Your task to perform on an android device: see tabs open on other devices in the chrome app Image 0: 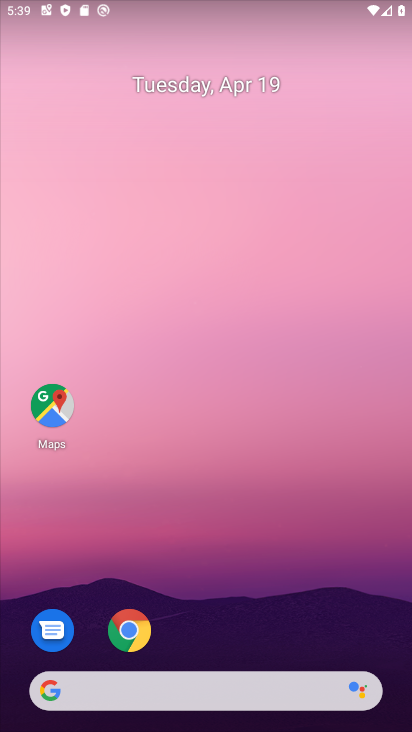
Step 0: drag from (283, 610) to (226, 32)
Your task to perform on an android device: see tabs open on other devices in the chrome app Image 1: 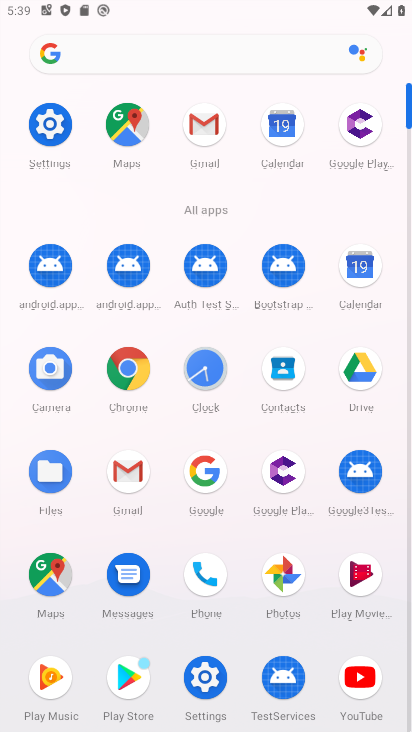
Step 1: click (112, 371)
Your task to perform on an android device: see tabs open on other devices in the chrome app Image 2: 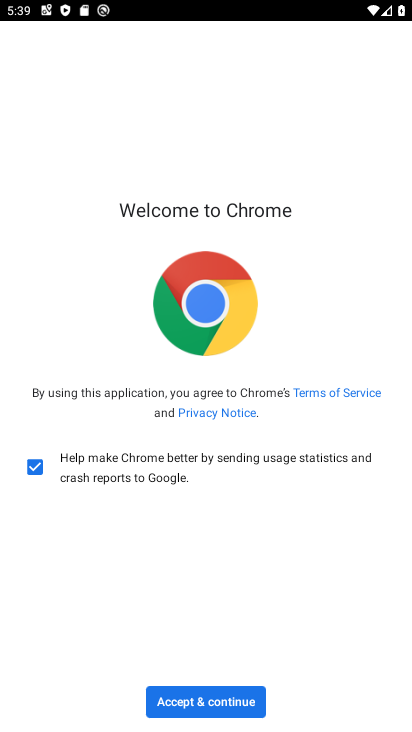
Step 2: click (213, 702)
Your task to perform on an android device: see tabs open on other devices in the chrome app Image 3: 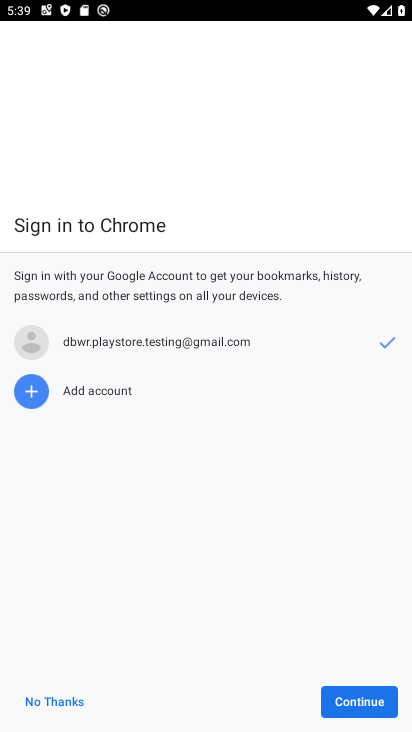
Step 3: click (345, 705)
Your task to perform on an android device: see tabs open on other devices in the chrome app Image 4: 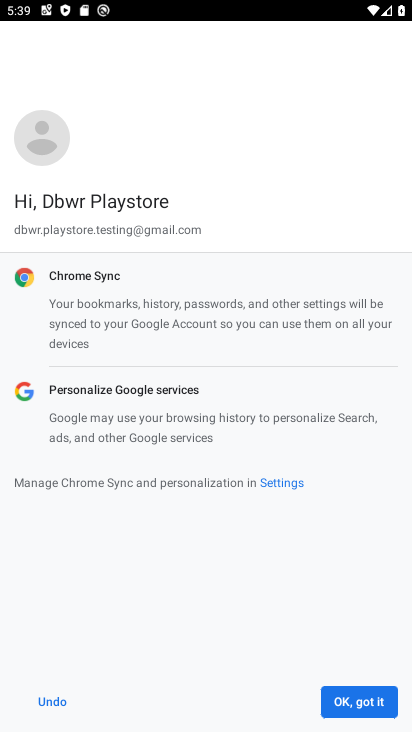
Step 4: click (345, 705)
Your task to perform on an android device: see tabs open on other devices in the chrome app Image 5: 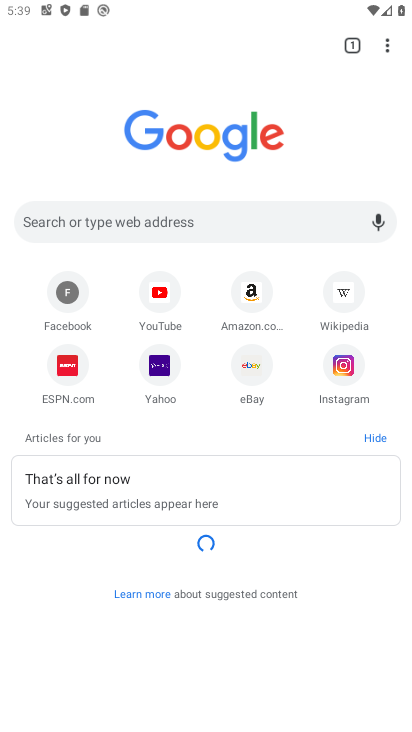
Step 5: click (381, 52)
Your task to perform on an android device: see tabs open on other devices in the chrome app Image 6: 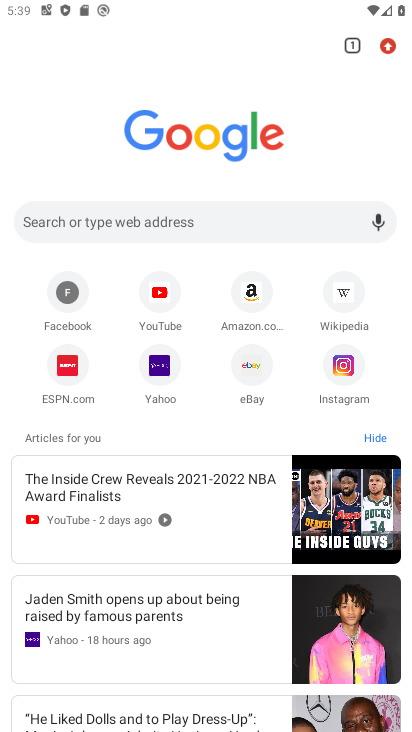
Step 6: task complete